Your task to perform on an android device: turn off picture-in-picture Image 0: 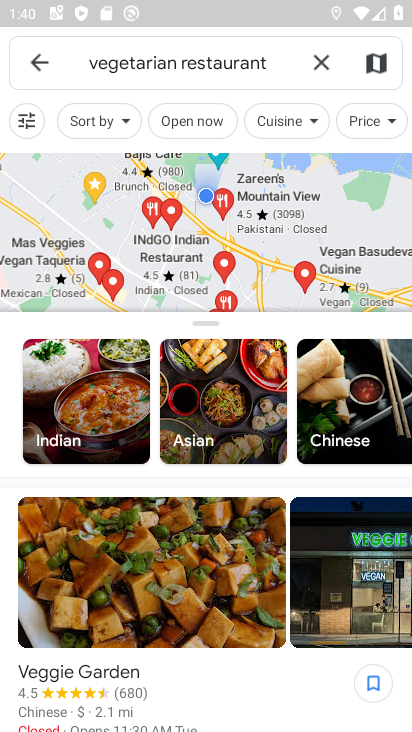
Step 0: press home button
Your task to perform on an android device: turn off picture-in-picture Image 1: 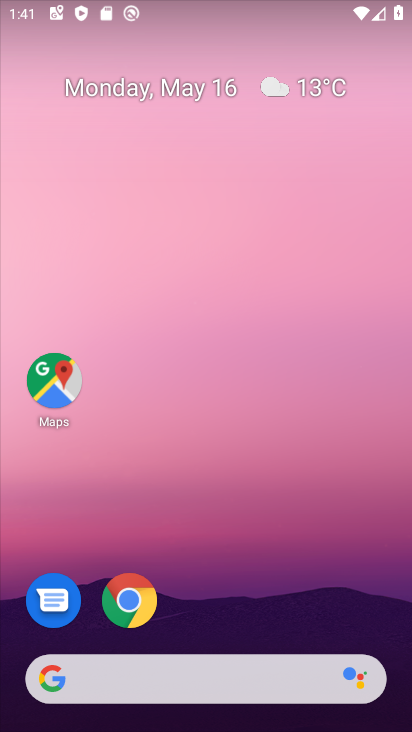
Step 1: click (130, 592)
Your task to perform on an android device: turn off picture-in-picture Image 2: 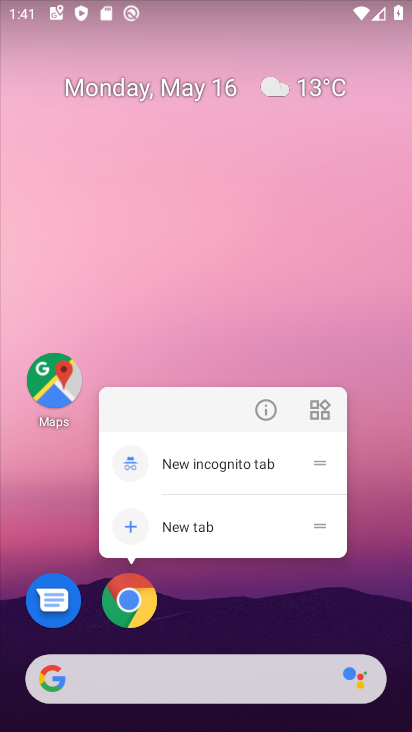
Step 2: click (262, 403)
Your task to perform on an android device: turn off picture-in-picture Image 3: 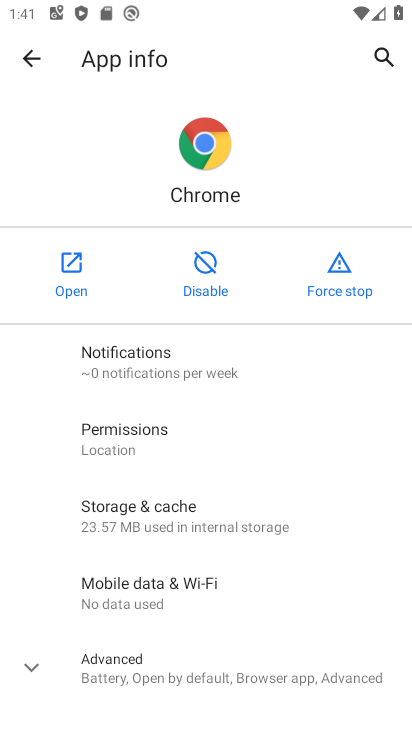
Step 3: drag from (281, 684) to (275, 578)
Your task to perform on an android device: turn off picture-in-picture Image 4: 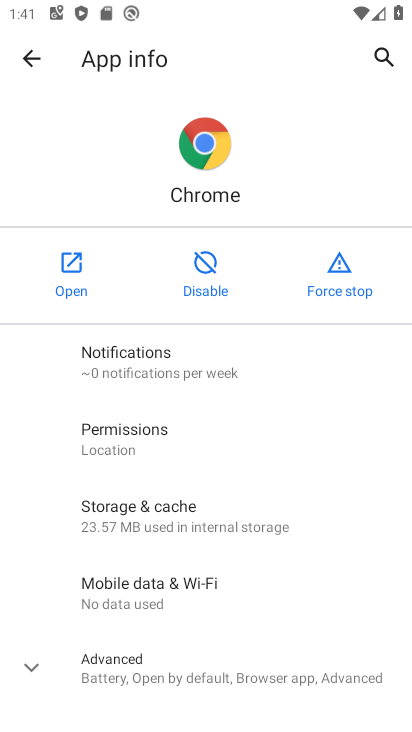
Step 4: click (234, 673)
Your task to perform on an android device: turn off picture-in-picture Image 5: 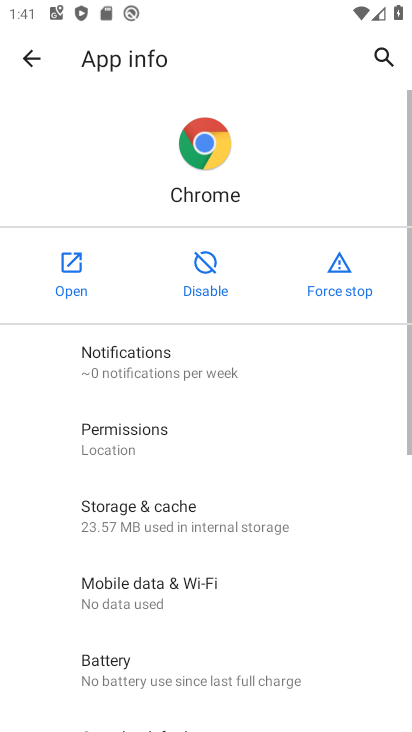
Step 5: drag from (227, 642) to (231, 278)
Your task to perform on an android device: turn off picture-in-picture Image 6: 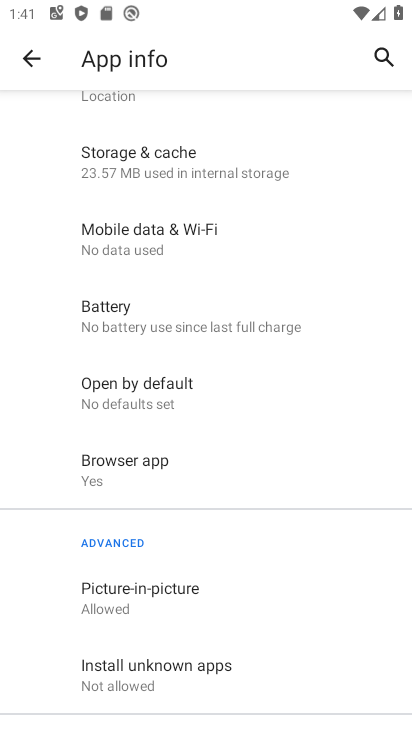
Step 6: click (170, 589)
Your task to perform on an android device: turn off picture-in-picture Image 7: 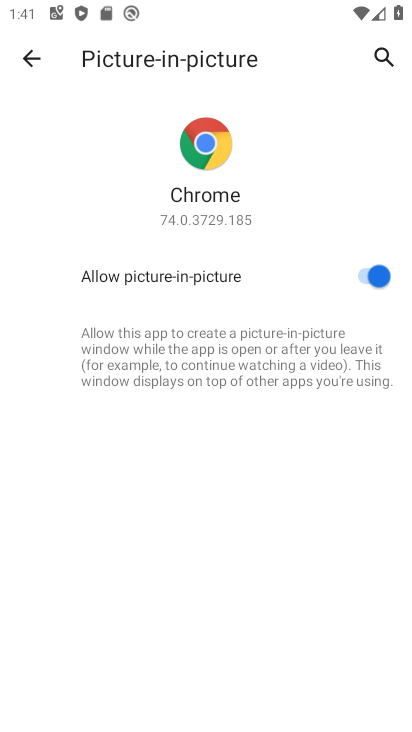
Step 7: click (383, 282)
Your task to perform on an android device: turn off picture-in-picture Image 8: 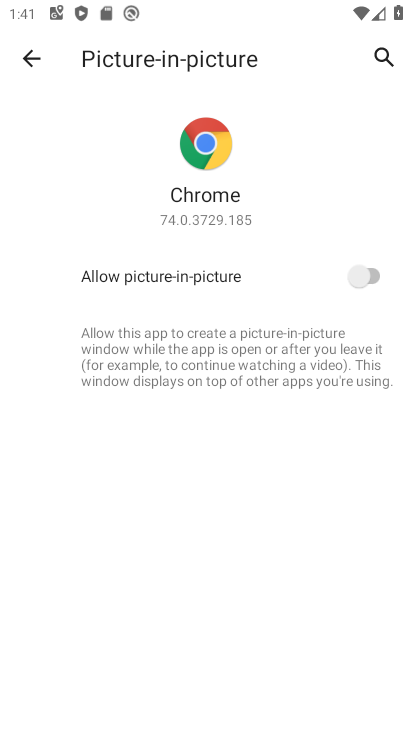
Step 8: task complete